Your task to perform on an android device: toggle notification dots Image 0: 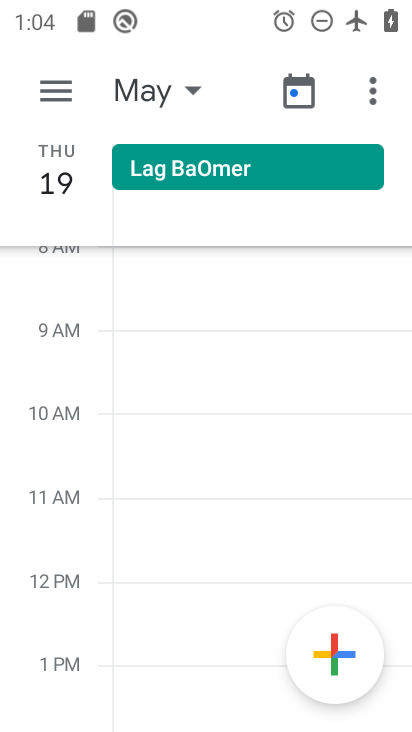
Step 0: press home button
Your task to perform on an android device: toggle notification dots Image 1: 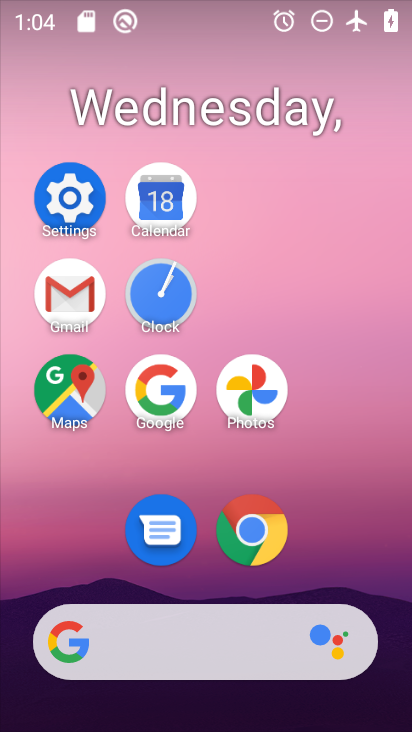
Step 1: click (42, 225)
Your task to perform on an android device: toggle notification dots Image 2: 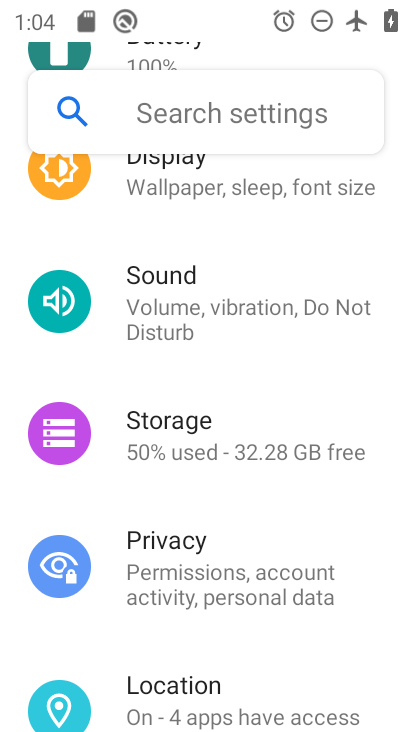
Step 2: drag from (255, 217) to (274, 670)
Your task to perform on an android device: toggle notification dots Image 3: 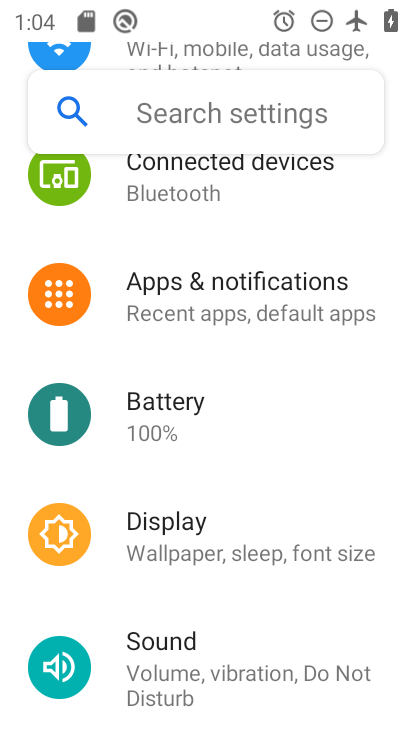
Step 3: click (245, 343)
Your task to perform on an android device: toggle notification dots Image 4: 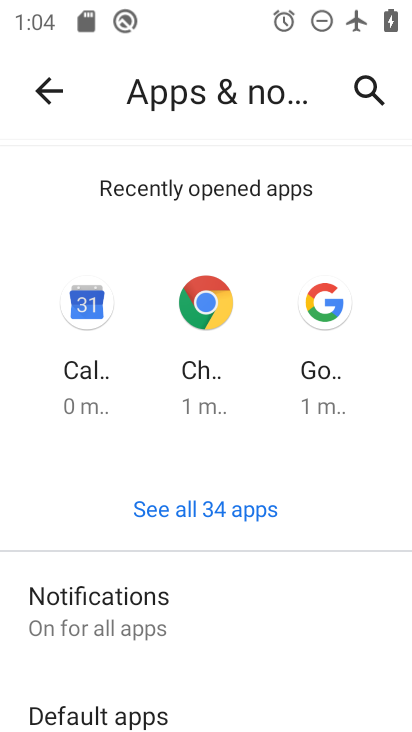
Step 4: click (129, 602)
Your task to perform on an android device: toggle notification dots Image 5: 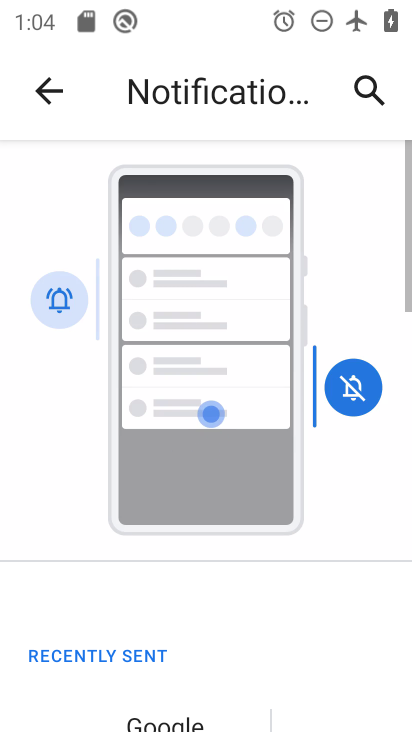
Step 5: drag from (266, 660) to (255, 151)
Your task to perform on an android device: toggle notification dots Image 6: 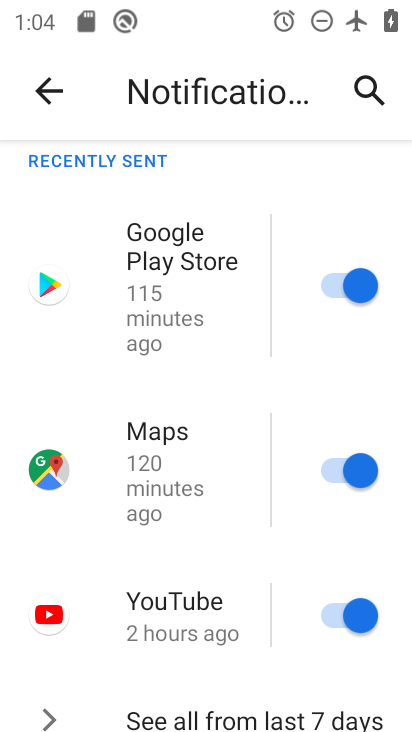
Step 6: drag from (202, 672) to (216, 226)
Your task to perform on an android device: toggle notification dots Image 7: 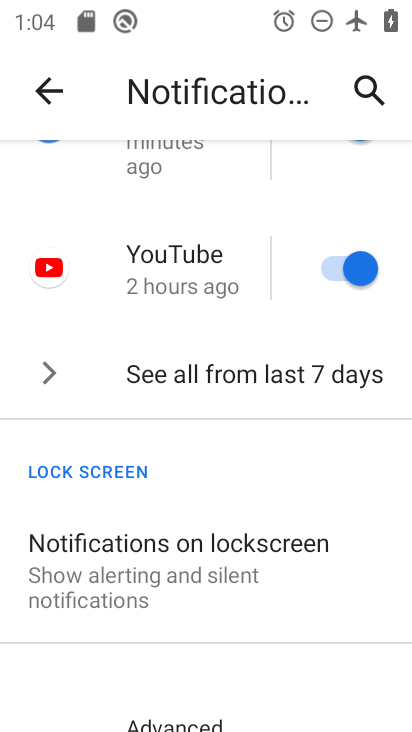
Step 7: drag from (219, 571) to (240, 279)
Your task to perform on an android device: toggle notification dots Image 8: 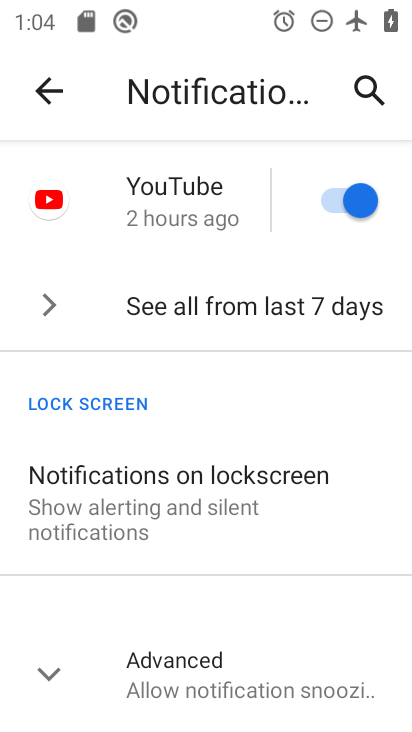
Step 8: click (181, 659)
Your task to perform on an android device: toggle notification dots Image 9: 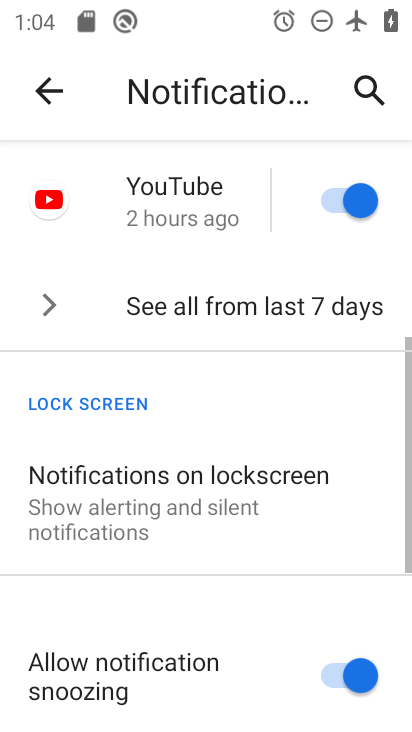
Step 9: drag from (193, 600) to (216, 289)
Your task to perform on an android device: toggle notification dots Image 10: 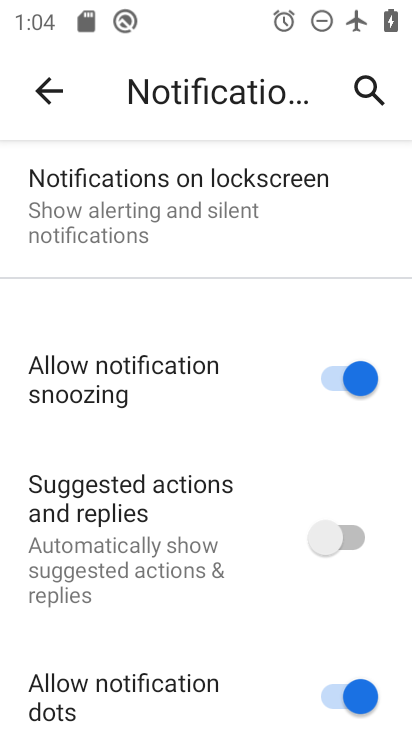
Step 10: click (355, 700)
Your task to perform on an android device: toggle notification dots Image 11: 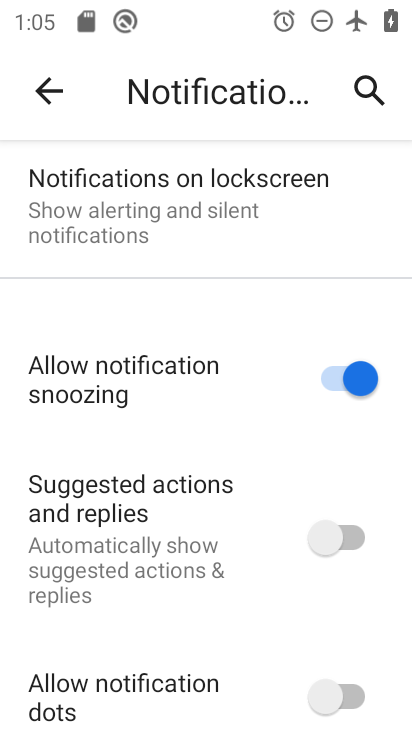
Step 11: task complete